Your task to perform on an android device: turn off airplane mode Image 0: 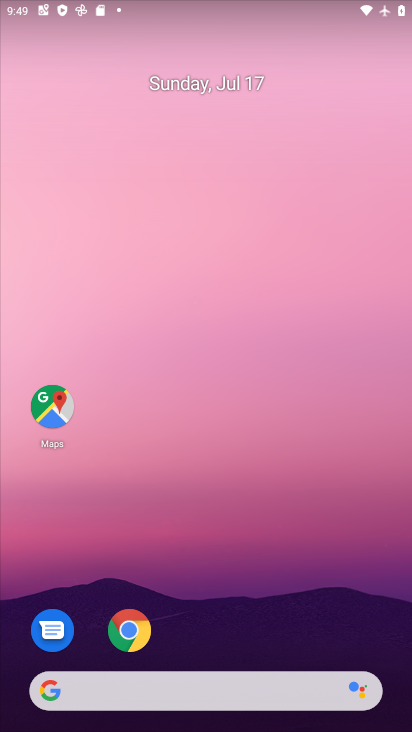
Step 0: drag from (241, 648) to (246, 290)
Your task to perform on an android device: turn off airplane mode Image 1: 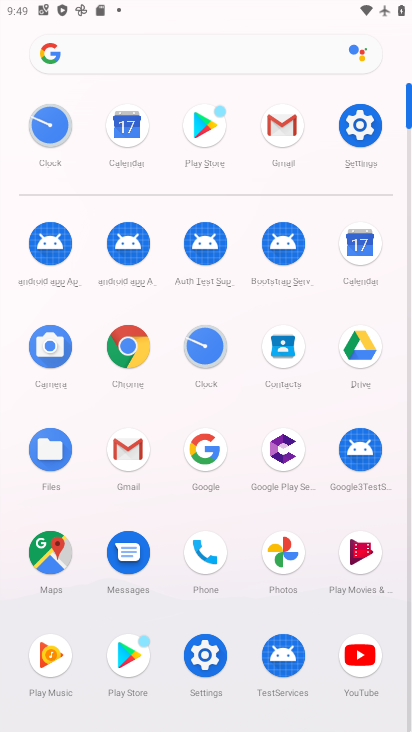
Step 1: click (201, 661)
Your task to perform on an android device: turn off airplane mode Image 2: 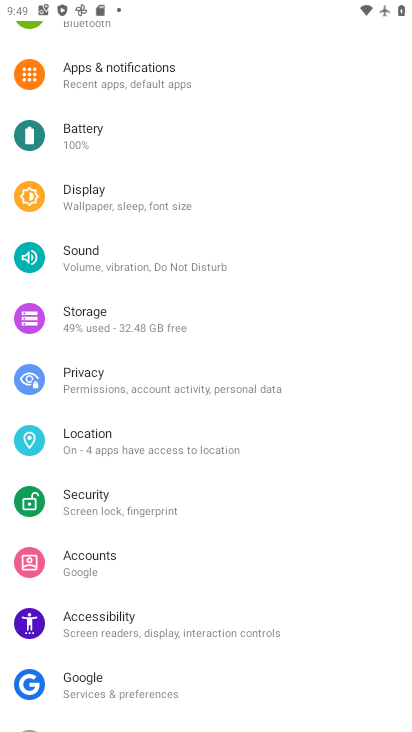
Step 2: drag from (159, 103) to (194, 292)
Your task to perform on an android device: turn off airplane mode Image 3: 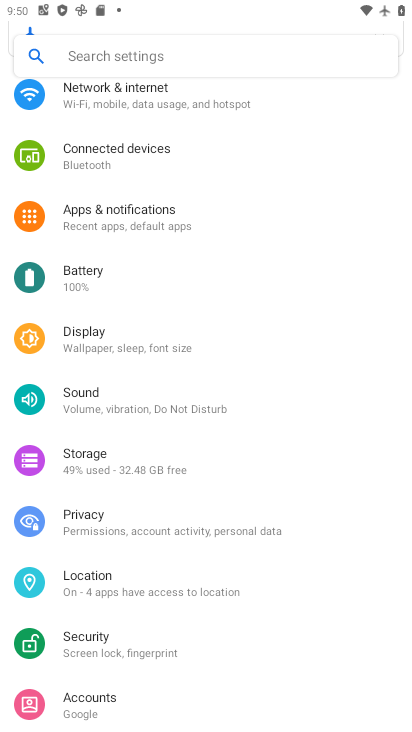
Step 3: click (154, 124)
Your task to perform on an android device: turn off airplane mode Image 4: 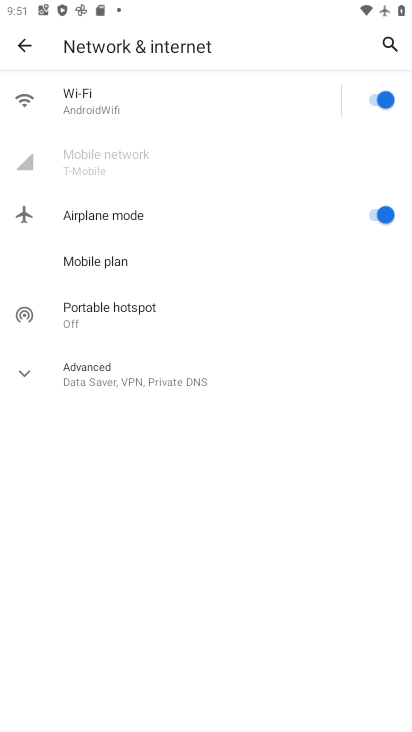
Step 4: click (326, 227)
Your task to perform on an android device: turn off airplane mode Image 5: 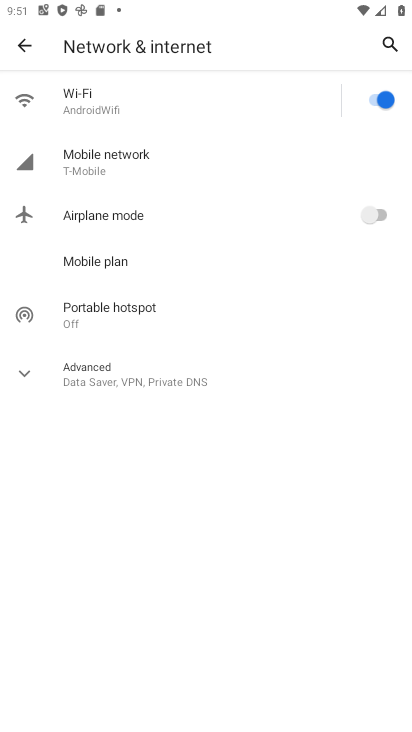
Step 5: task complete